Your task to perform on an android device: Is it going to rain this weekend? Image 0: 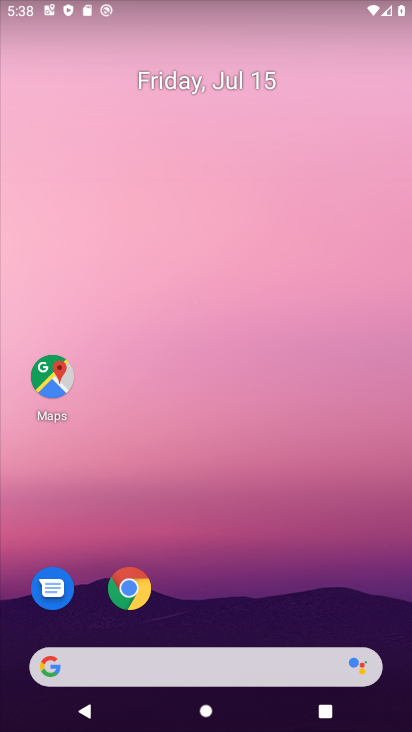
Step 0: drag from (257, 654) to (233, 15)
Your task to perform on an android device: Is it going to rain this weekend? Image 1: 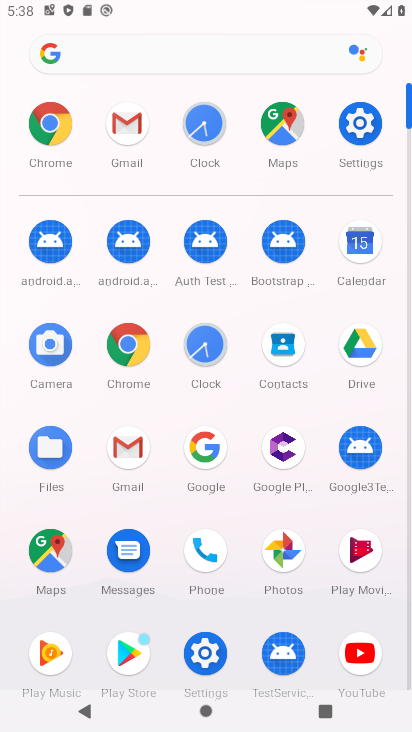
Step 1: click (106, 341)
Your task to perform on an android device: Is it going to rain this weekend? Image 2: 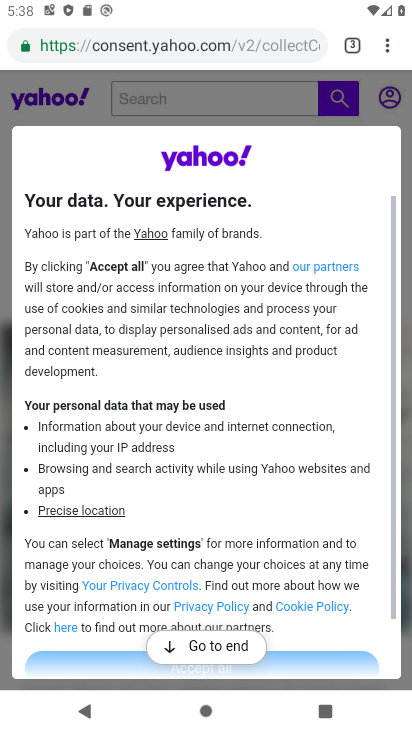
Step 2: type "going to rain this weekend"
Your task to perform on an android device: Is it going to rain this weekend? Image 3: 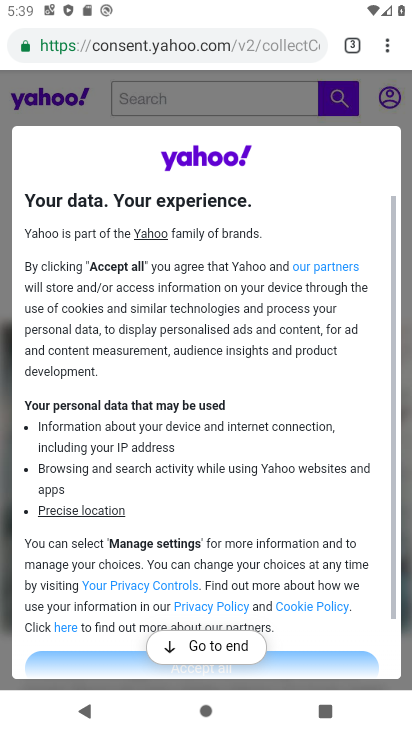
Step 3: click (131, 50)
Your task to perform on an android device: Is it going to rain this weekend? Image 4: 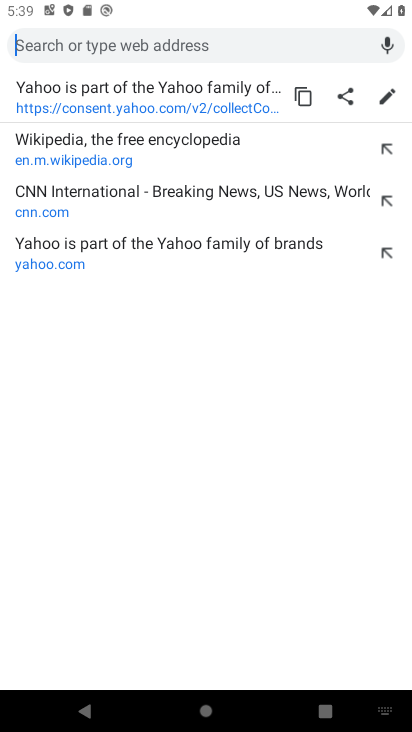
Step 4: type "going to rain this weekend"
Your task to perform on an android device: Is it going to rain this weekend? Image 5: 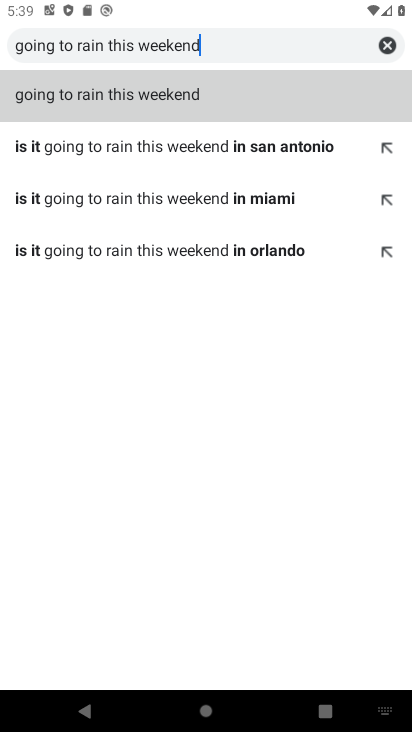
Step 5: click (138, 97)
Your task to perform on an android device: Is it going to rain this weekend? Image 6: 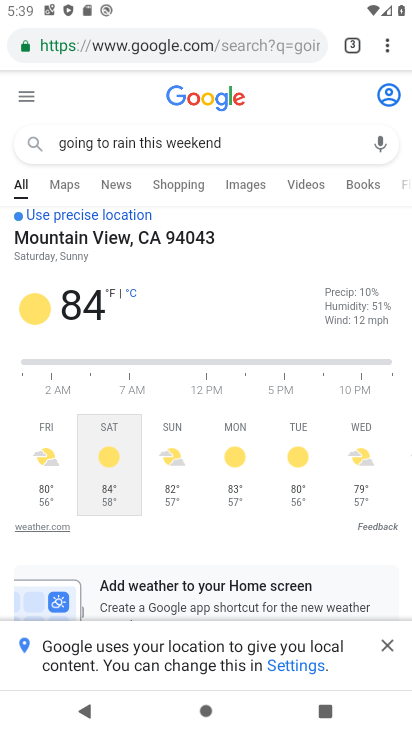
Step 6: task complete